Your task to perform on an android device: change keyboard looks Image 0: 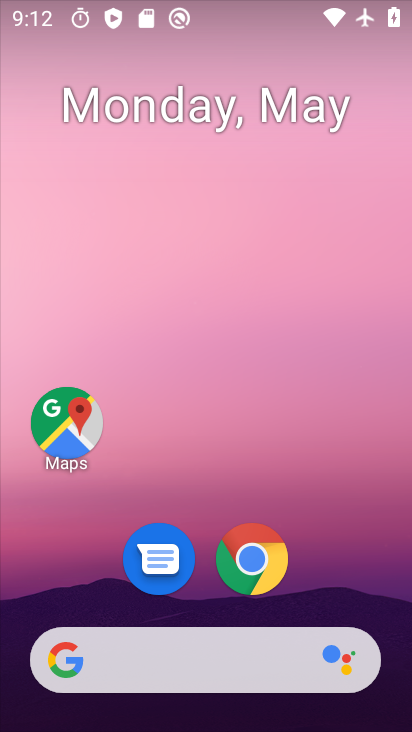
Step 0: drag from (287, 494) to (253, 43)
Your task to perform on an android device: change keyboard looks Image 1: 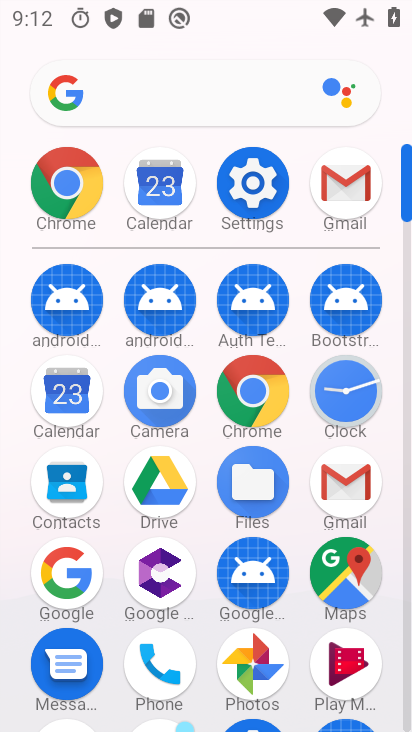
Step 1: click (247, 187)
Your task to perform on an android device: change keyboard looks Image 2: 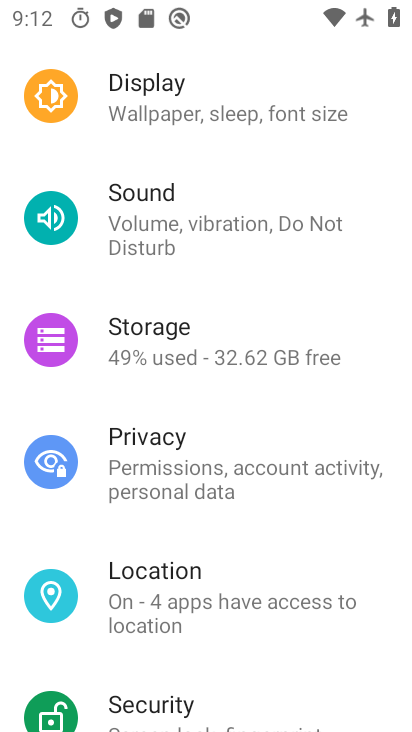
Step 2: drag from (153, 639) to (154, 201)
Your task to perform on an android device: change keyboard looks Image 3: 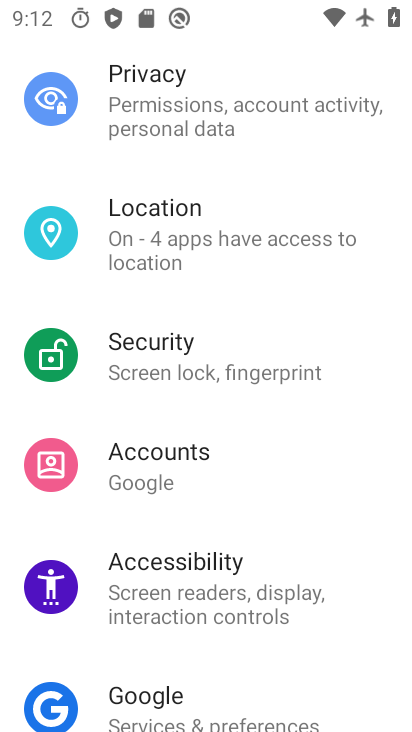
Step 3: drag from (233, 602) to (213, 292)
Your task to perform on an android device: change keyboard looks Image 4: 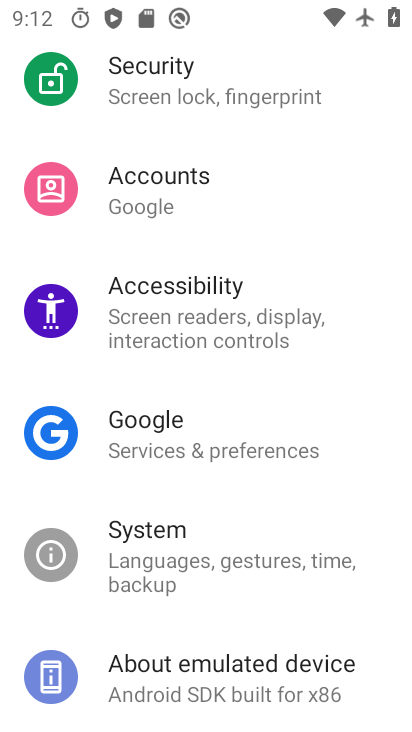
Step 4: click (185, 562)
Your task to perform on an android device: change keyboard looks Image 5: 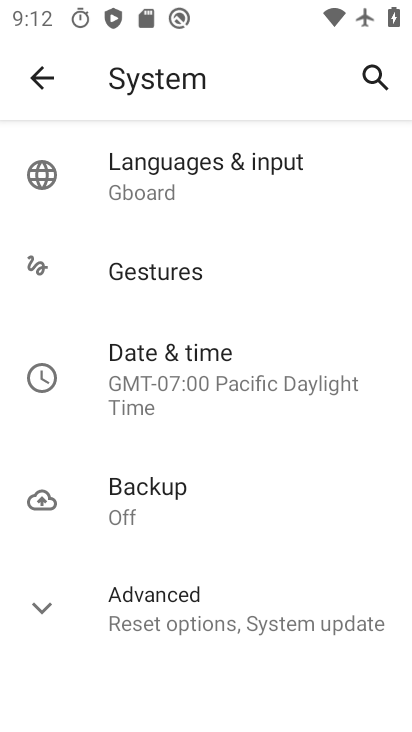
Step 5: click (189, 181)
Your task to perform on an android device: change keyboard looks Image 6: 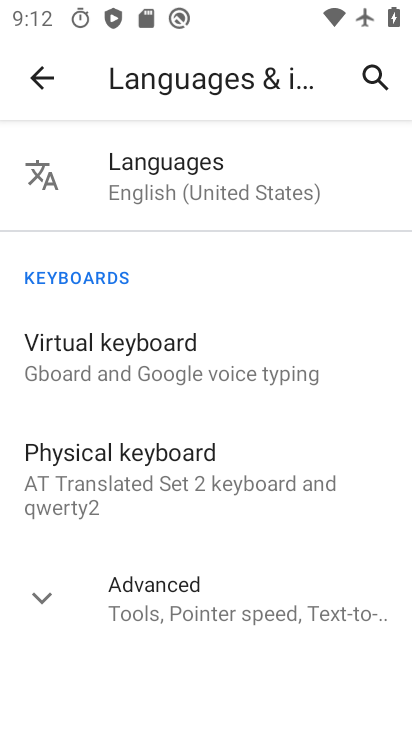
Step 6: click (141, 360)
Your task to perform on an android device: change keyboard looks Image 7: 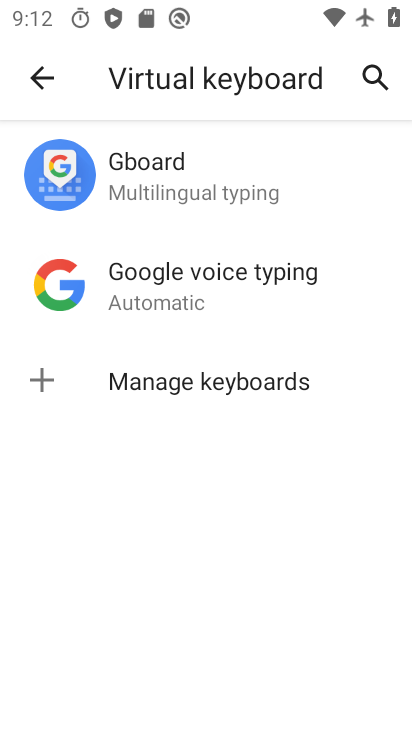
Step 7: click (170, 217)
Your task to perform on an android device: change keyboard looks Image 8: 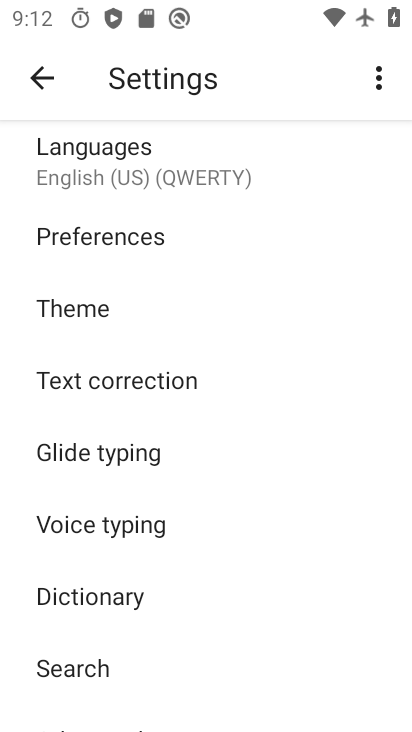
Step 8: click (88, 312)
Your task to perform on an android device: change keyboard looks Image 9: 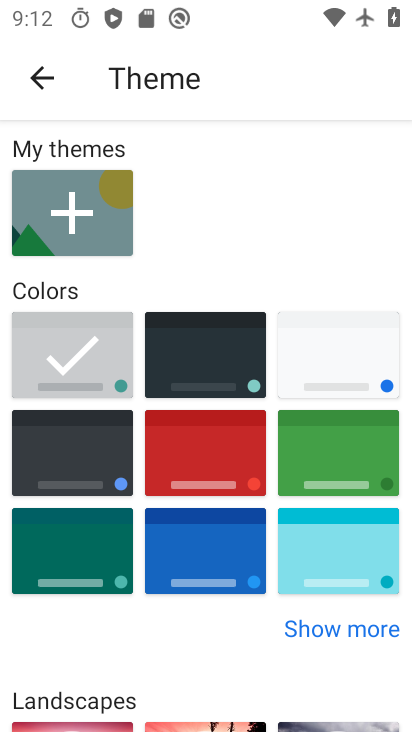
Step 9: click (174, 574)
Your task to perform on an android device: change keyboard looks Image 10: 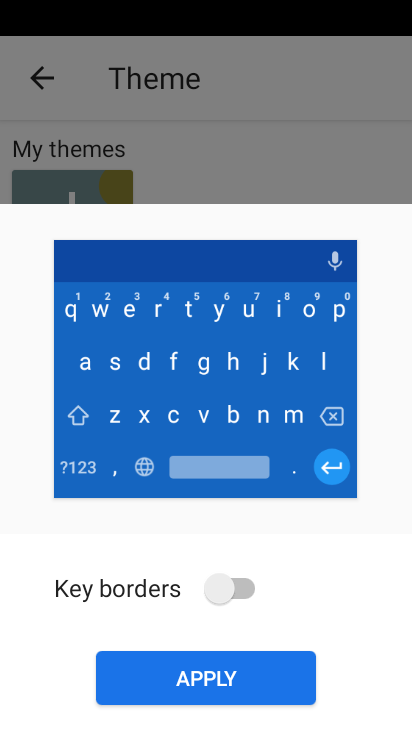
Step 10: click (212, 667)
Your task to perform on an android device: change keyboard looks Image 11: 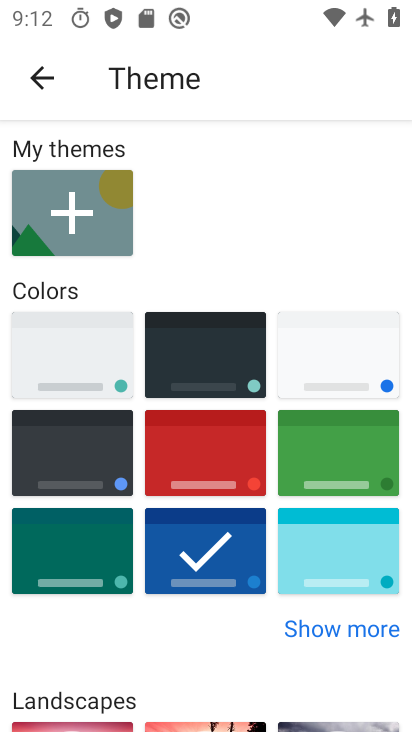
Step 11: task complete